Your task to perform on an android device: Do I have any events today? Image 0: 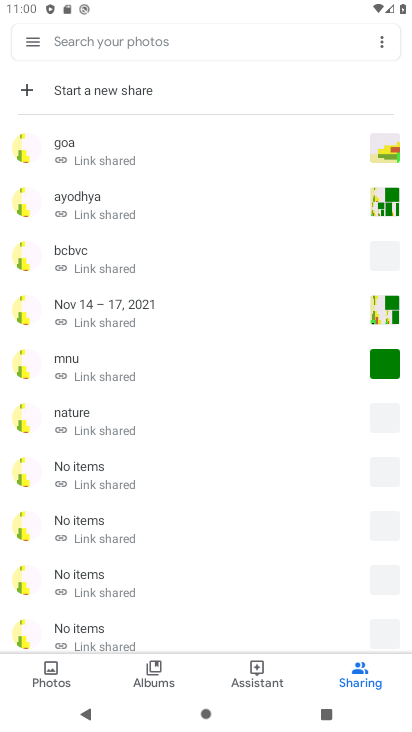
Step 0: press home button
Your task to perform on an android device: Do I have any events today? Image 1: 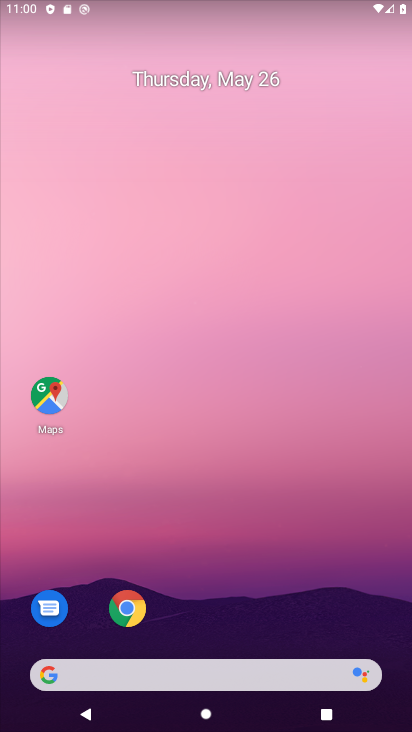
Step 1: drag from (322, 609) to (299, 45)
Your task to perform on an android device: Do I have any events today? Image 2: 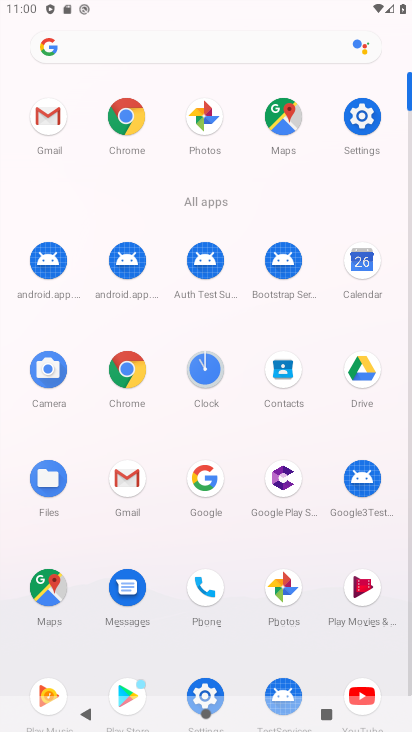
Step 2: click (124, 120)
Your task to perform on an android device: Do I have any events today? Image 3: 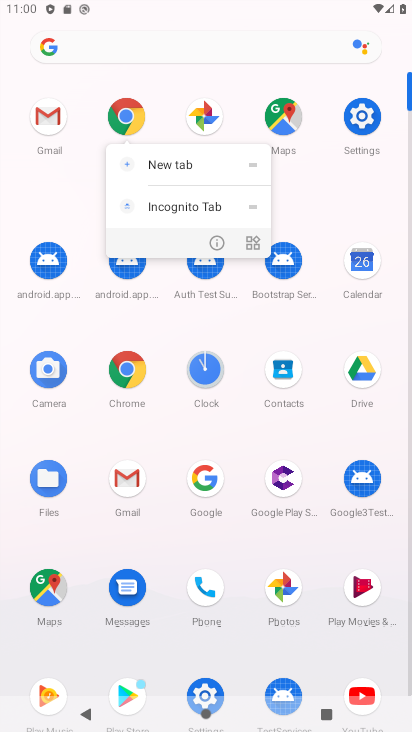
Step 3: click (125, 120)
Your task to perform on an android device: Do I have any events today? Image 4: 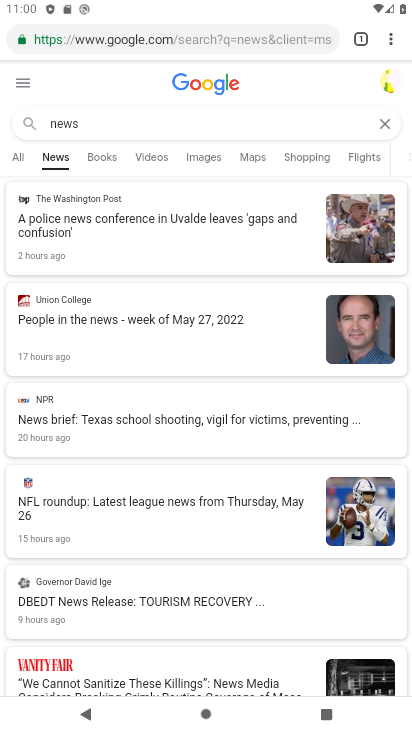
Step 4: press home button
Your task to perform on an android device: Do I have any events today? Image 5: 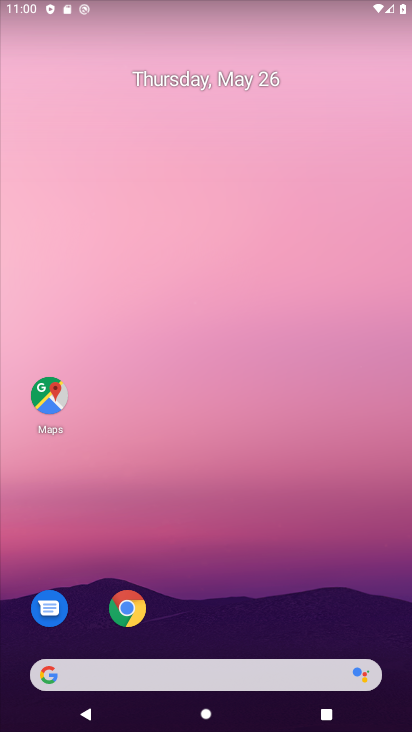
Step 5: drag from (174, 605) to (249, 81)
Your task to perform on an android device: Do I have any events today? Image 6: 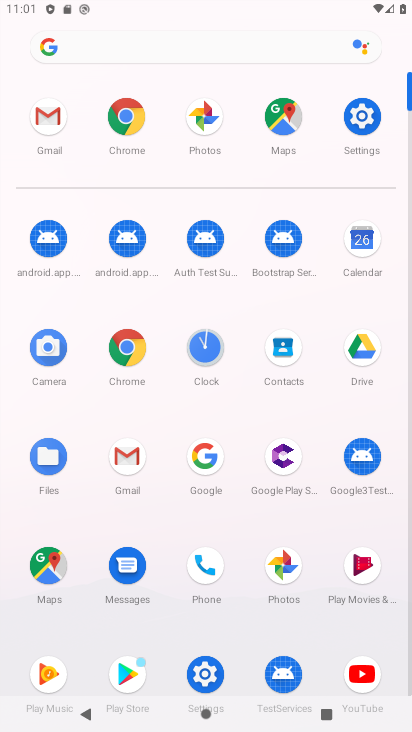
Step 6: click (359, 235)
Your task to perform on an android device: Do I have any events today? Image 7: 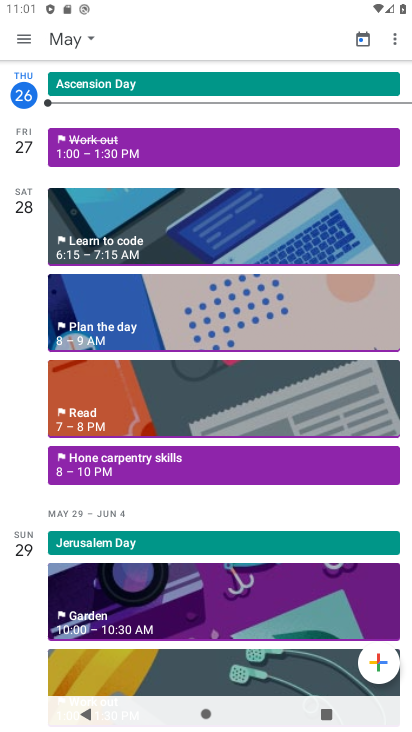
Step 7: task complete